Your task to perform on an android device: open app "Adobe Express: Graphic Design" (install if not already installed), go to login, and select forgot password Image 0: 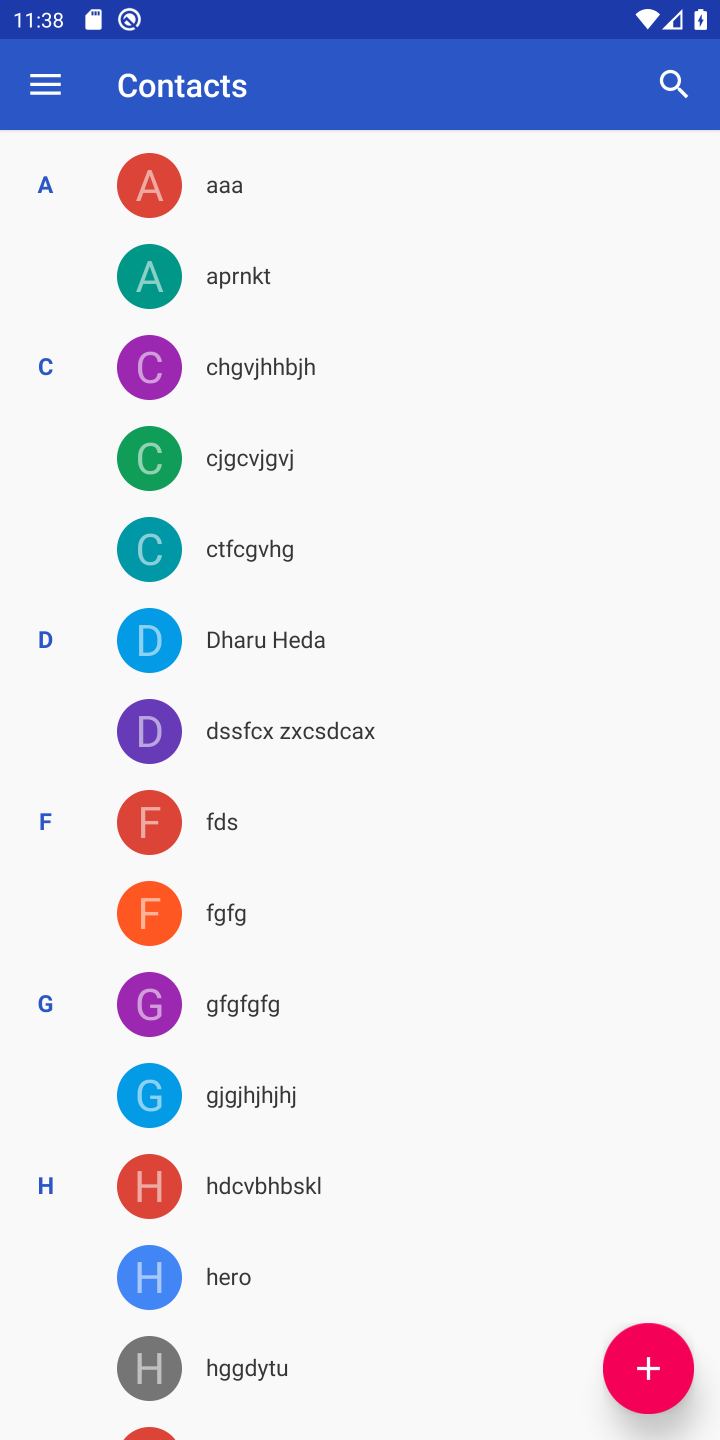
Step 0: press home button
Your task to perform on an android device: open app "Adobe Express: Graphic Design" (install if not already installed), go to login, and select forgot password Image 1: 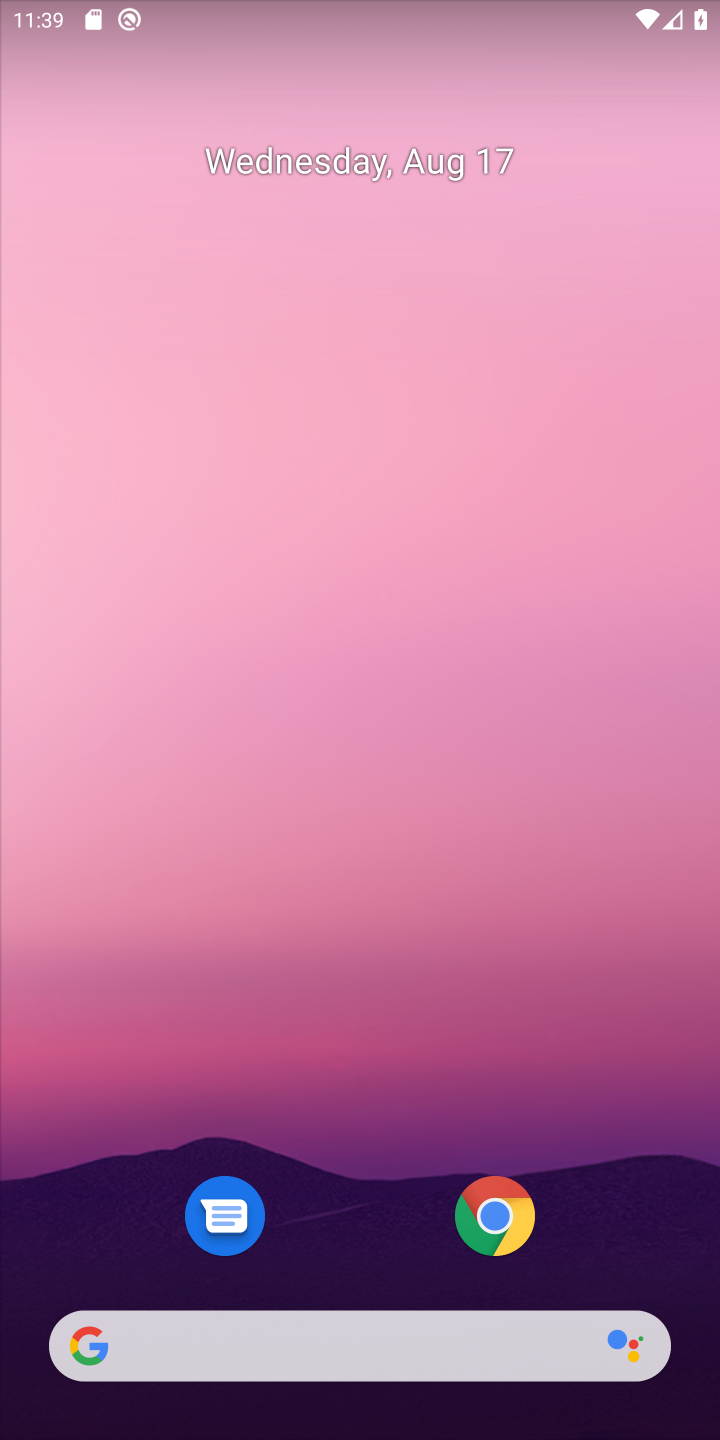
Step 1: drag from (646, 1193) to (519, 540)
Your task to perform on an android device: open app "Adobe Express: Graphic Design" (install if not already installed), go to login, and select forgot password Image 2: 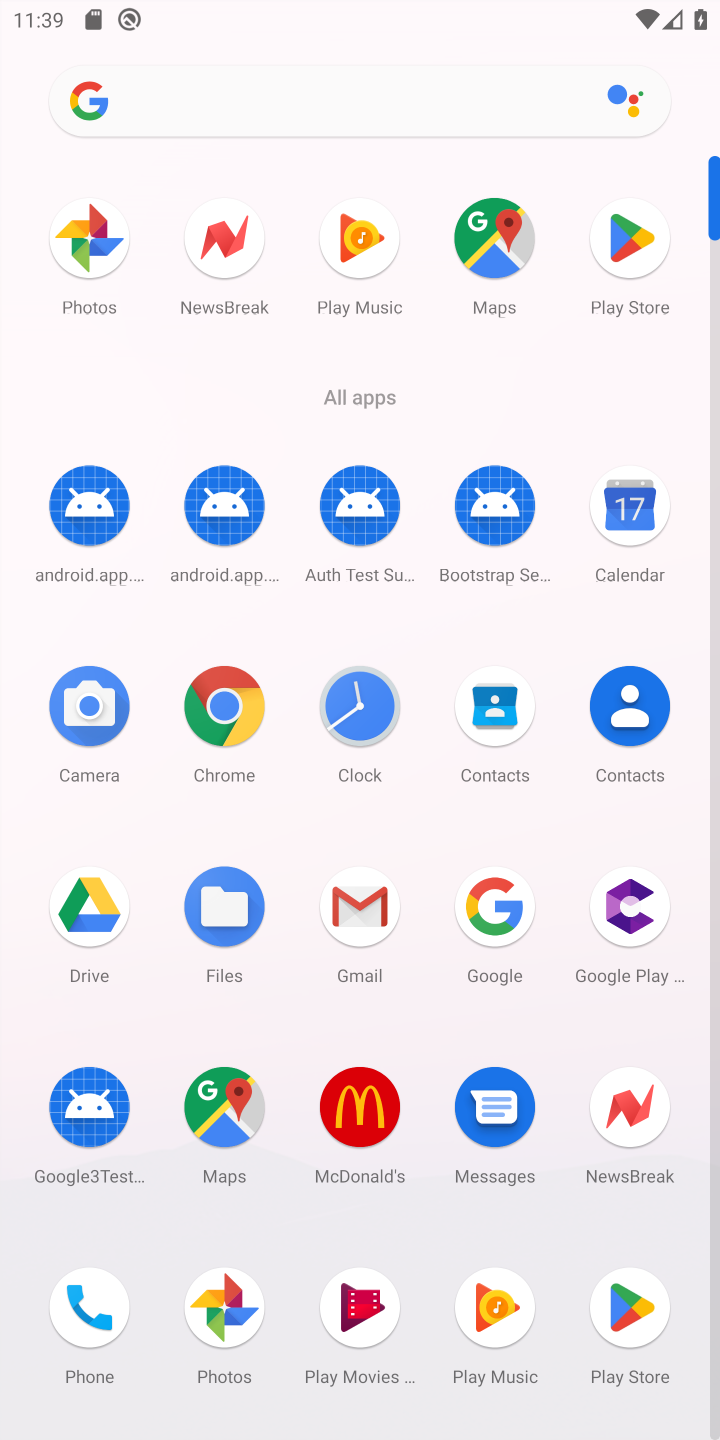
Step 2: click (620, 237)
Your task to perform on an android device: open app "Adobe Express: Graphic Design" (install if not already installed), go to login, and select forgot password Image 3: 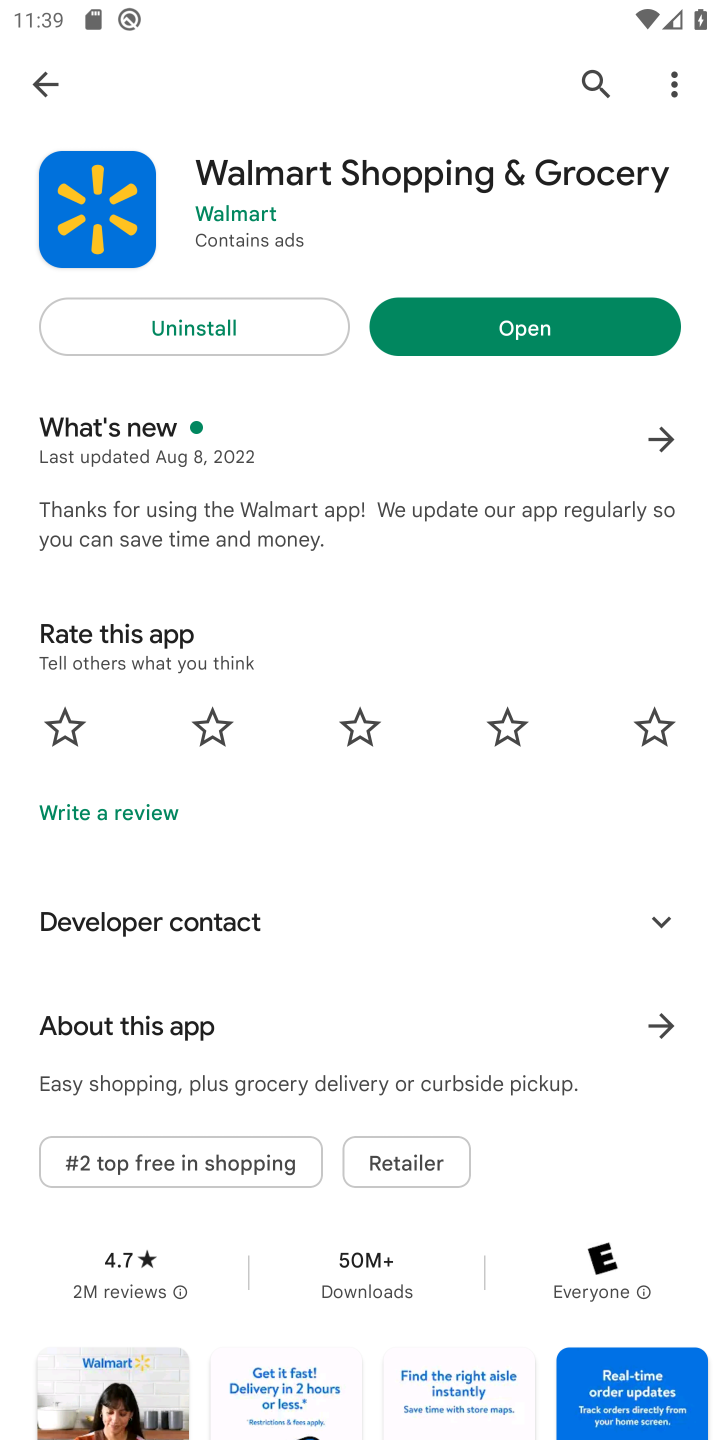
Step 3: click (596, 98)
Your task to perform on an android device: open app "Adobe Express: Graphic Design" (install if not already installed), go to login, and select forgot password Image 4: 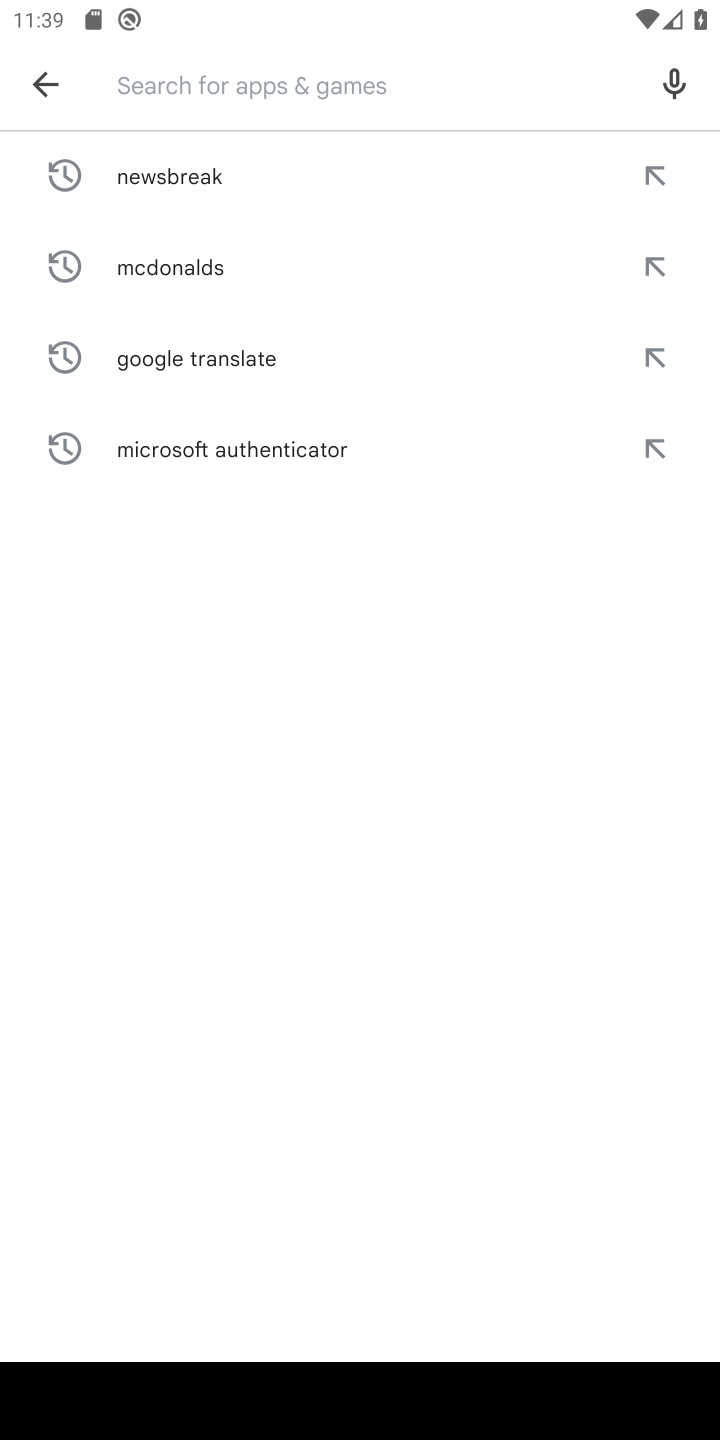
Step 4: type "adobe express"
Your task to perform on an android device: open app "Adobe Express: Graphic Design" (install if not already installed), go to login, and select forgot password Image 5: 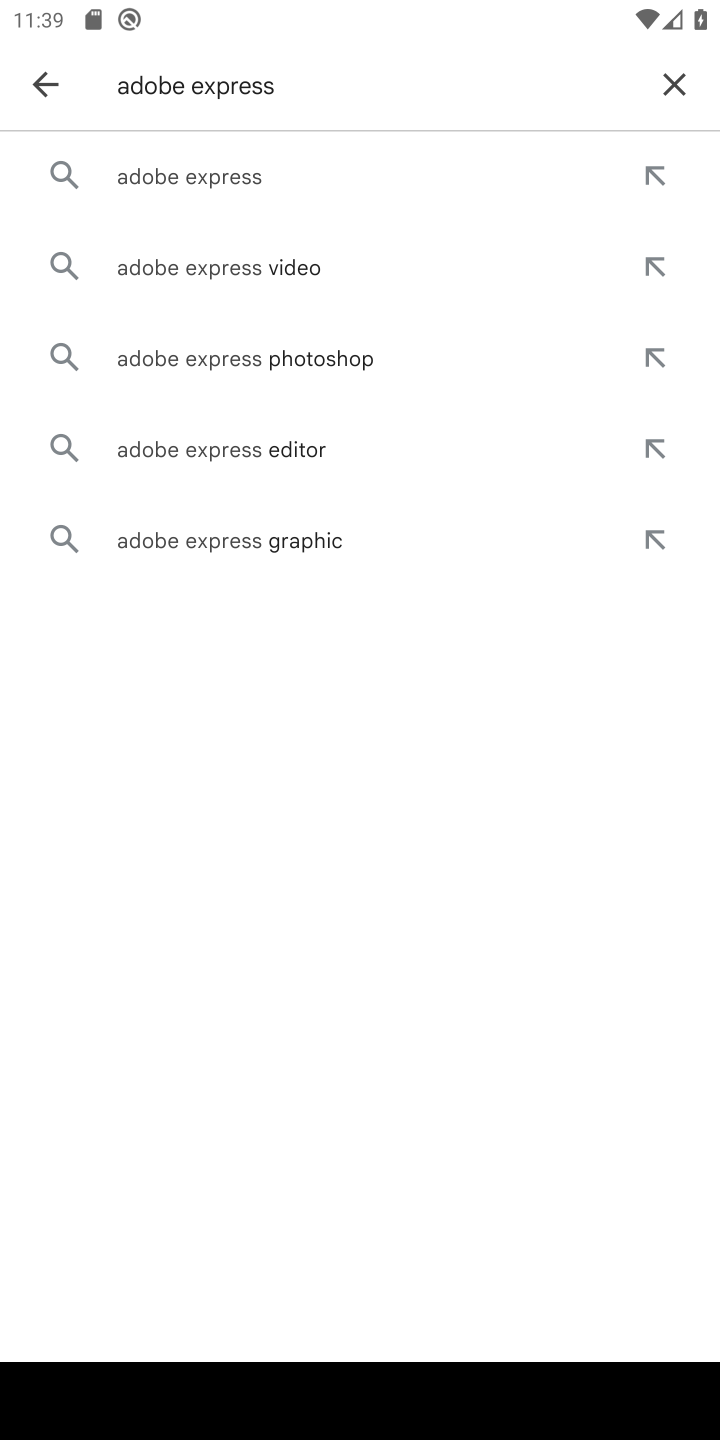
Step 5: click (298, 181)
Your task to perform on an android device: open app "Adobe Express: Graphic Design" (install if not already installed), go to login, and select forgot password Image 6: 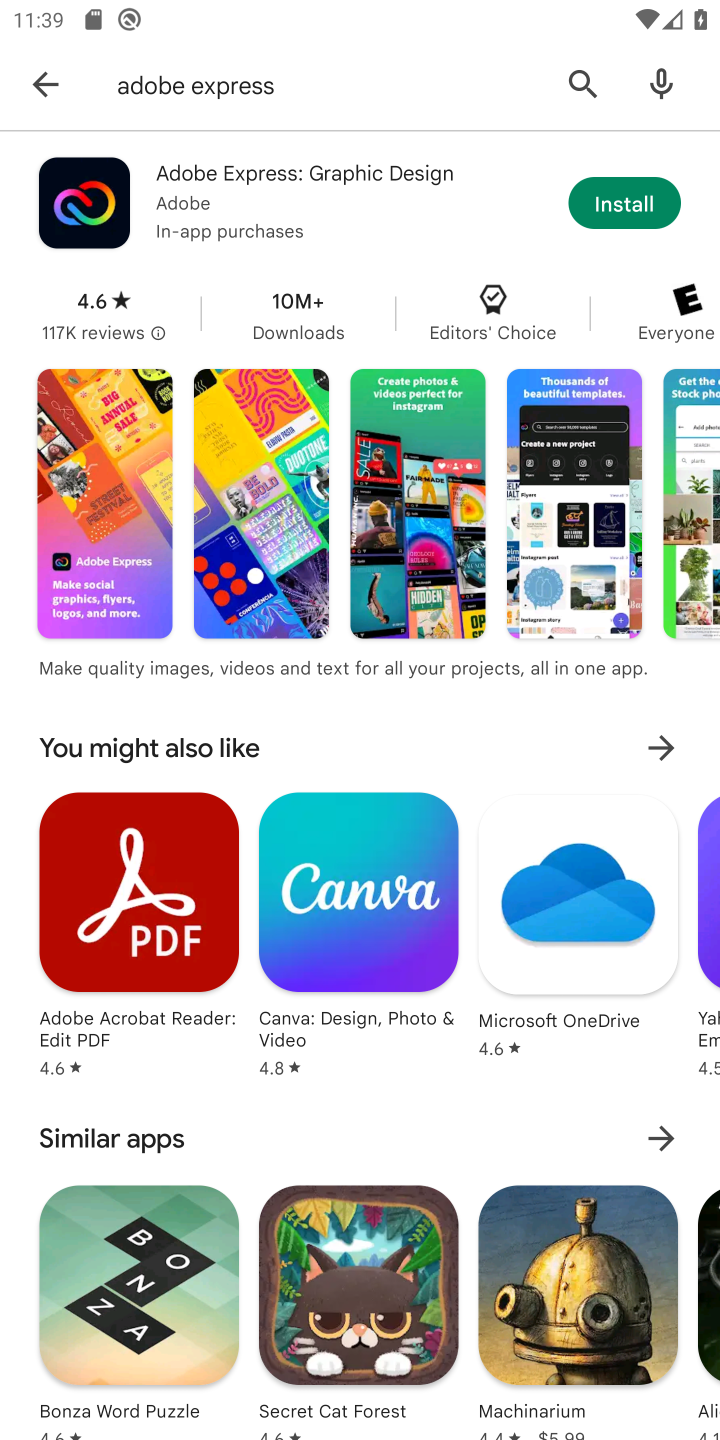
Step 6: click (618, 201)
Your task to perform on an android device: open app "Adobe Express: Graphic Design" (install if not already installed), go to login, and select forgot password Image 7: 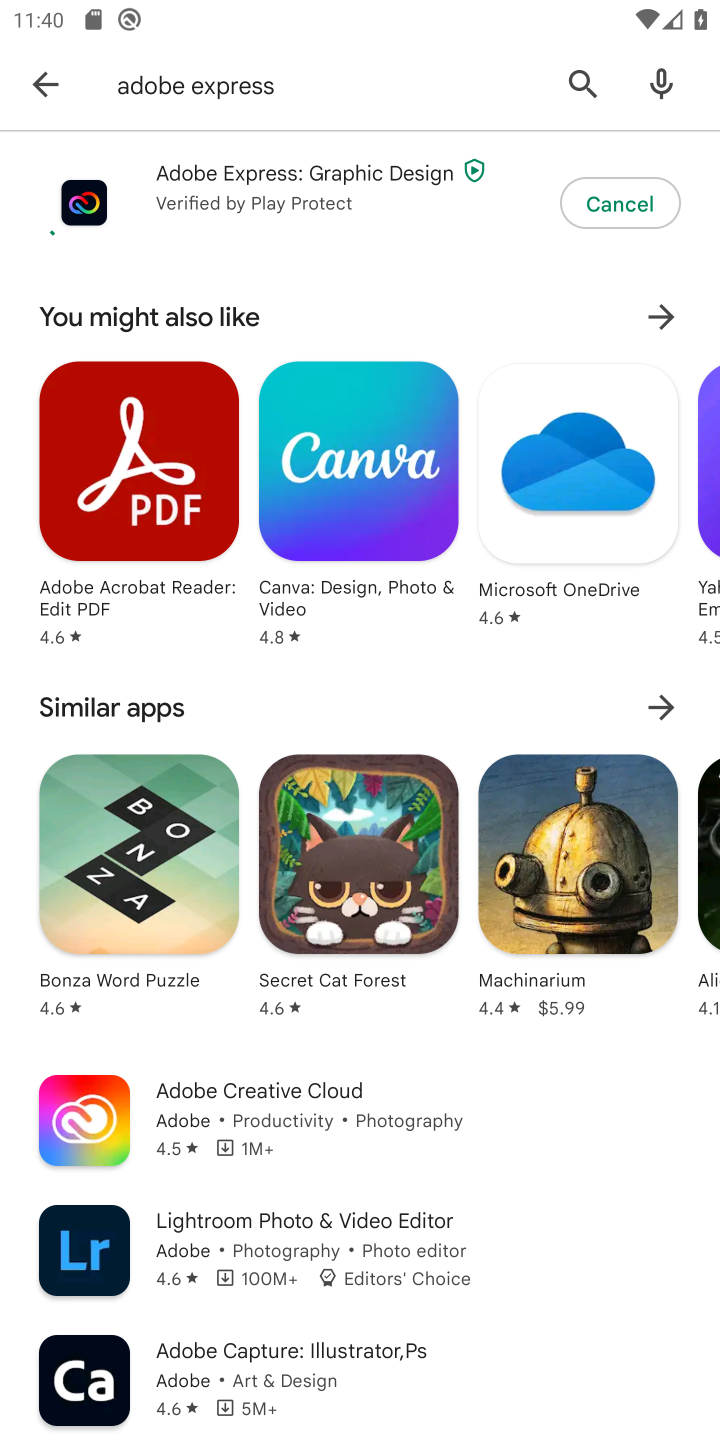
Step 7: click (282, 181)
Your task to perform on an android device: open app "Adobe Express: Graphic Design" (install if not already installed), go to login, and select forgot password Image 8: 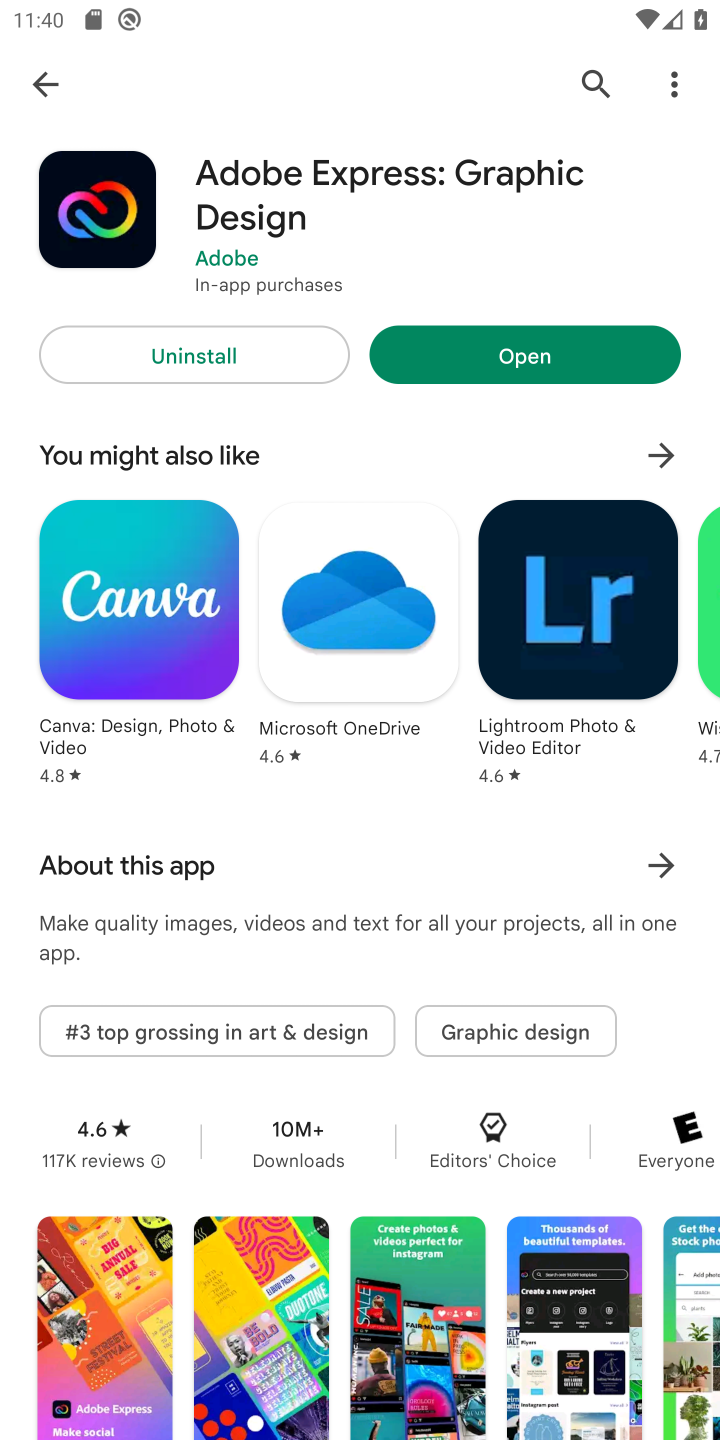
Step 8: click (492, 347)
Your task to perform on an android device: open app "Adobe Express: Graphic Design" (install if not already installed), go to login, and select forgot password Image 9: 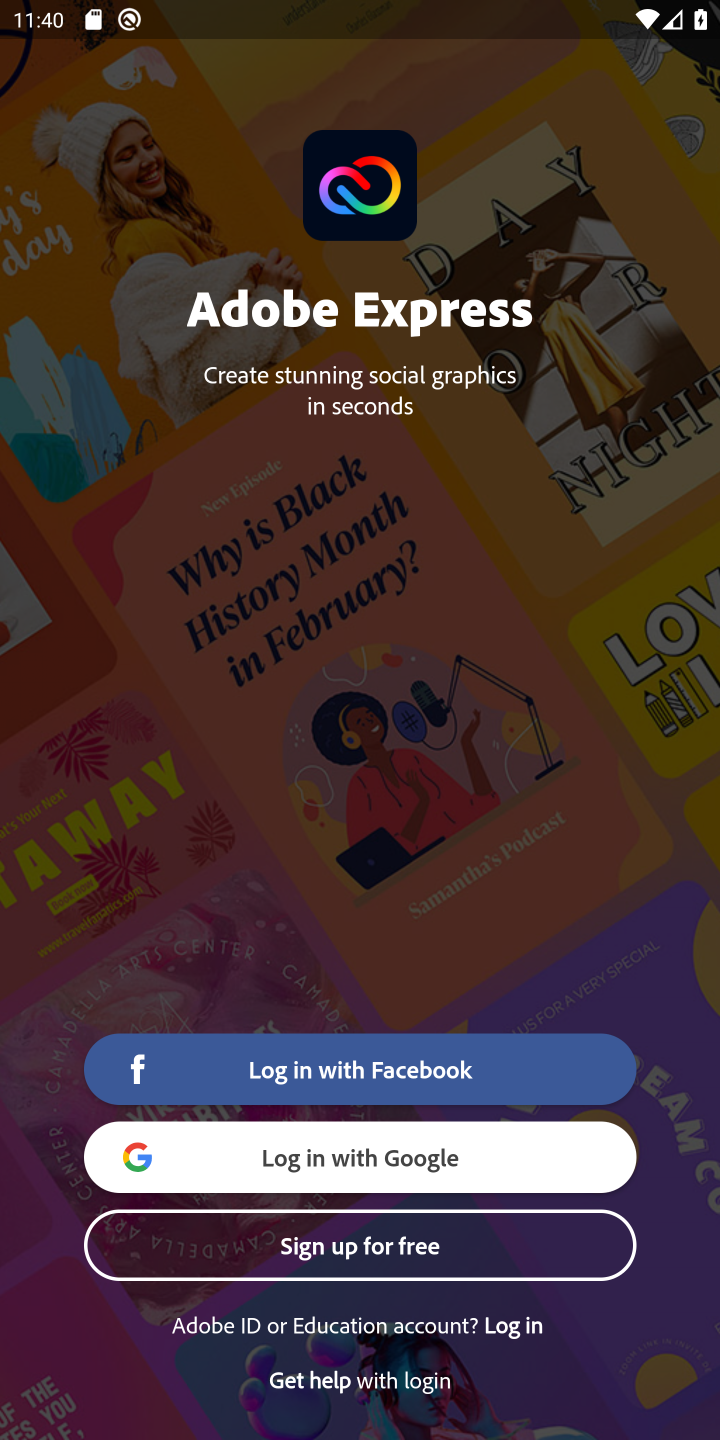
Step 9: click (510, 1328)
Your task to perform on an android device: open app "Adobe Express: Graphic Design" (install if not already installed), go to login, and select forgot password Image 10: 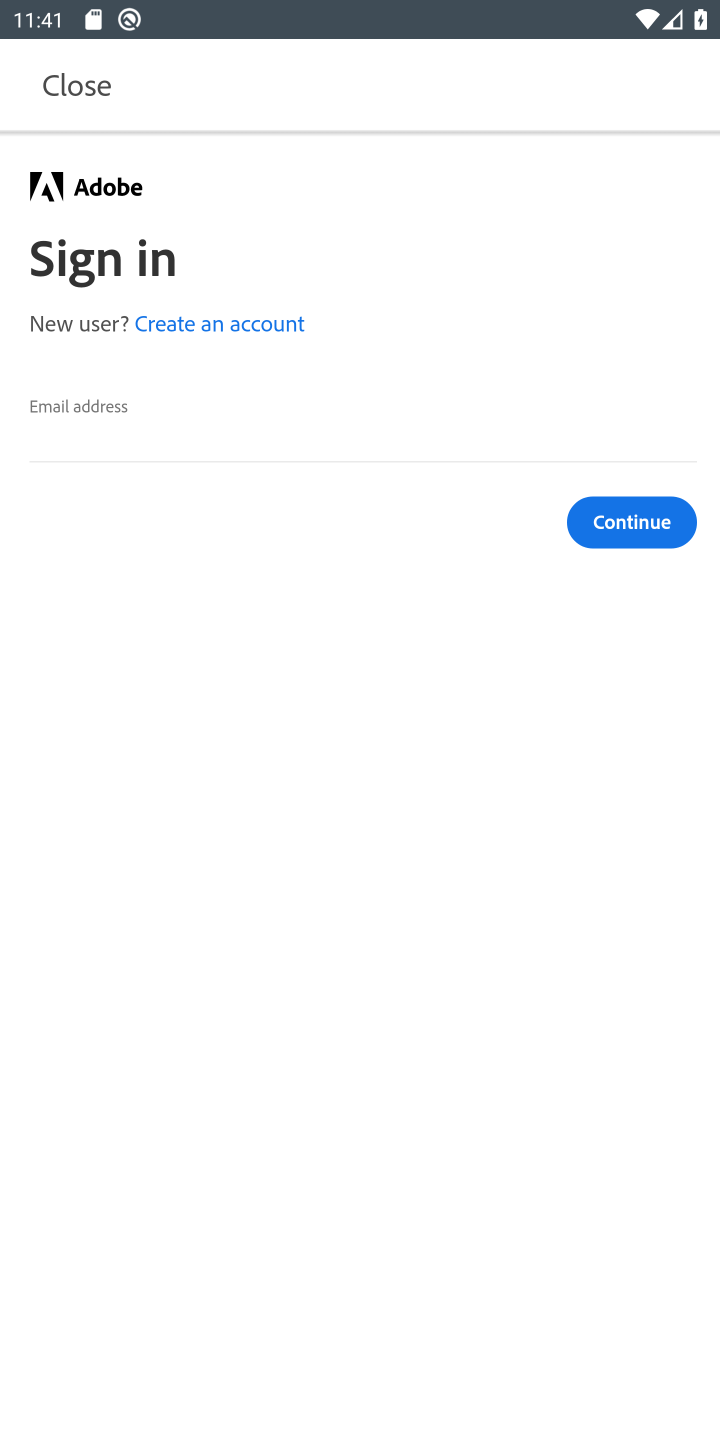
Step 10: click (595, 530)
Your task to perform on an android device: open app "Adobe Express: Graphic Design" (install if not already installed), go to login, and select forgot password Image 11: 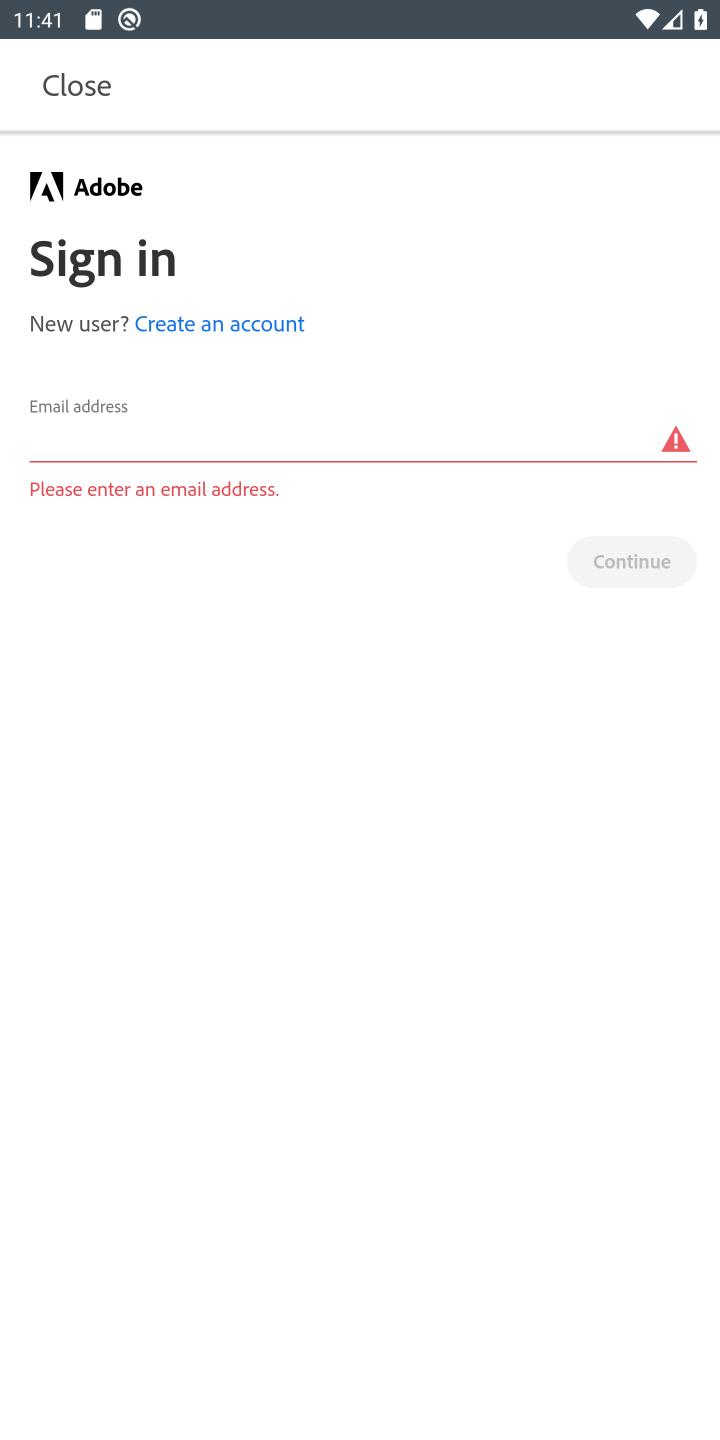
Step 11: task complete